Your task to perform on an android device: uninstall "Clock" Image 0: 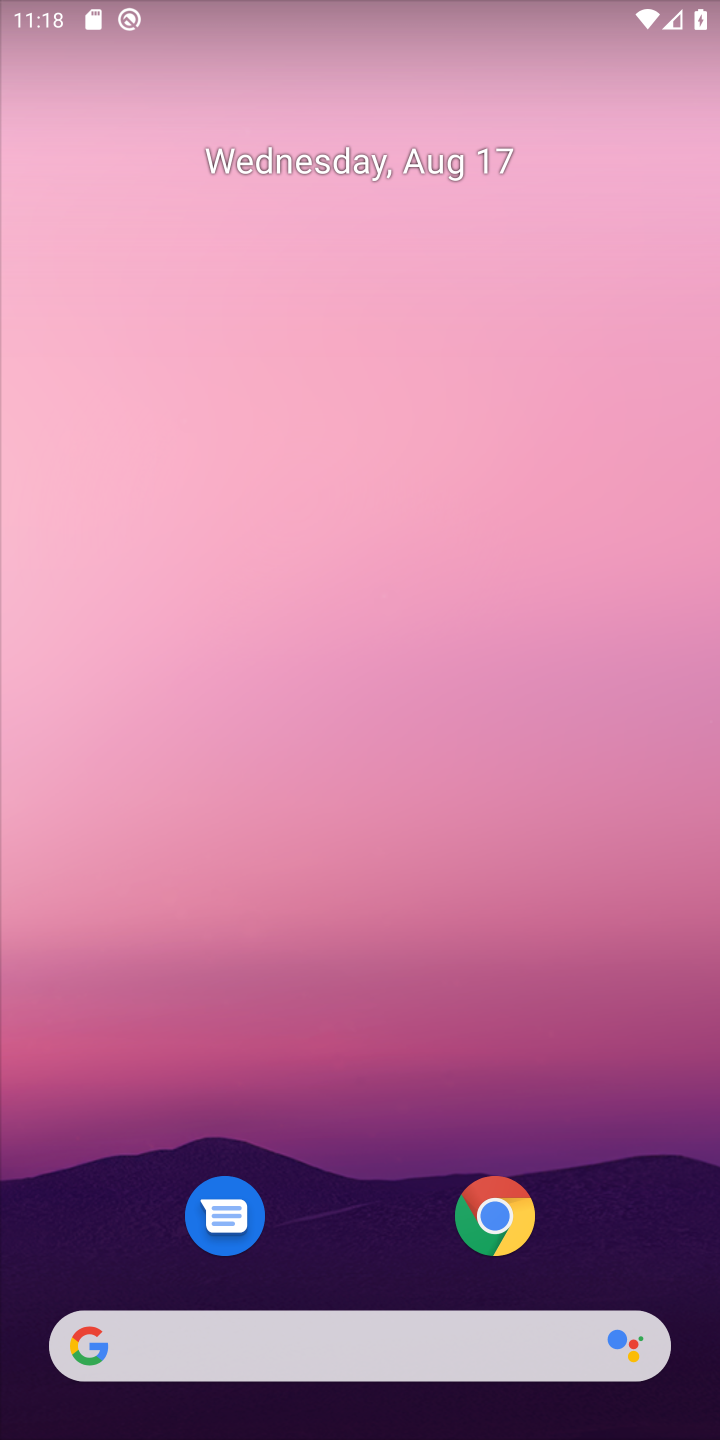
Step 0: click (649, 1004)
Your task to perform on an android device: uninstall "Clock" Image 1: 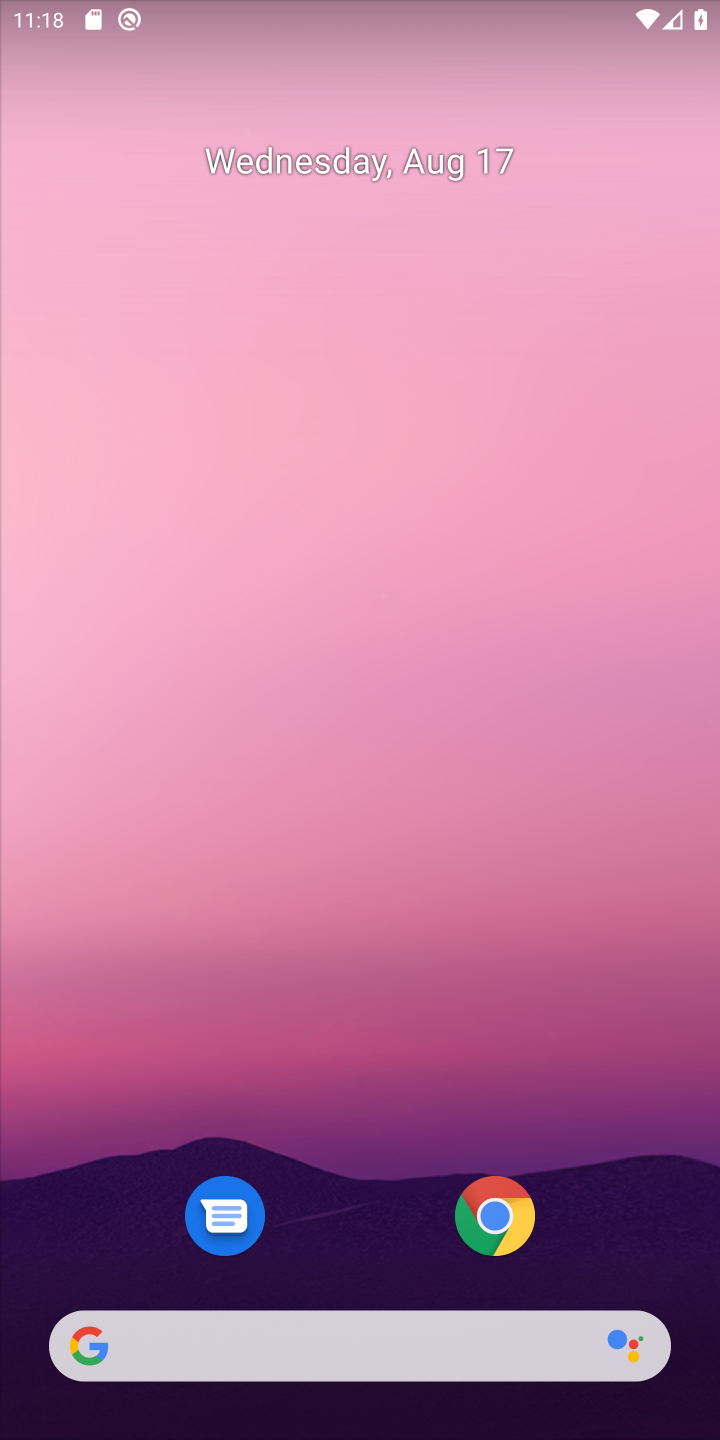
Step 1: drag from (660, 1194) to (484, 194)
Your task to perform on an android device: uninstall "Clock" Image 2: 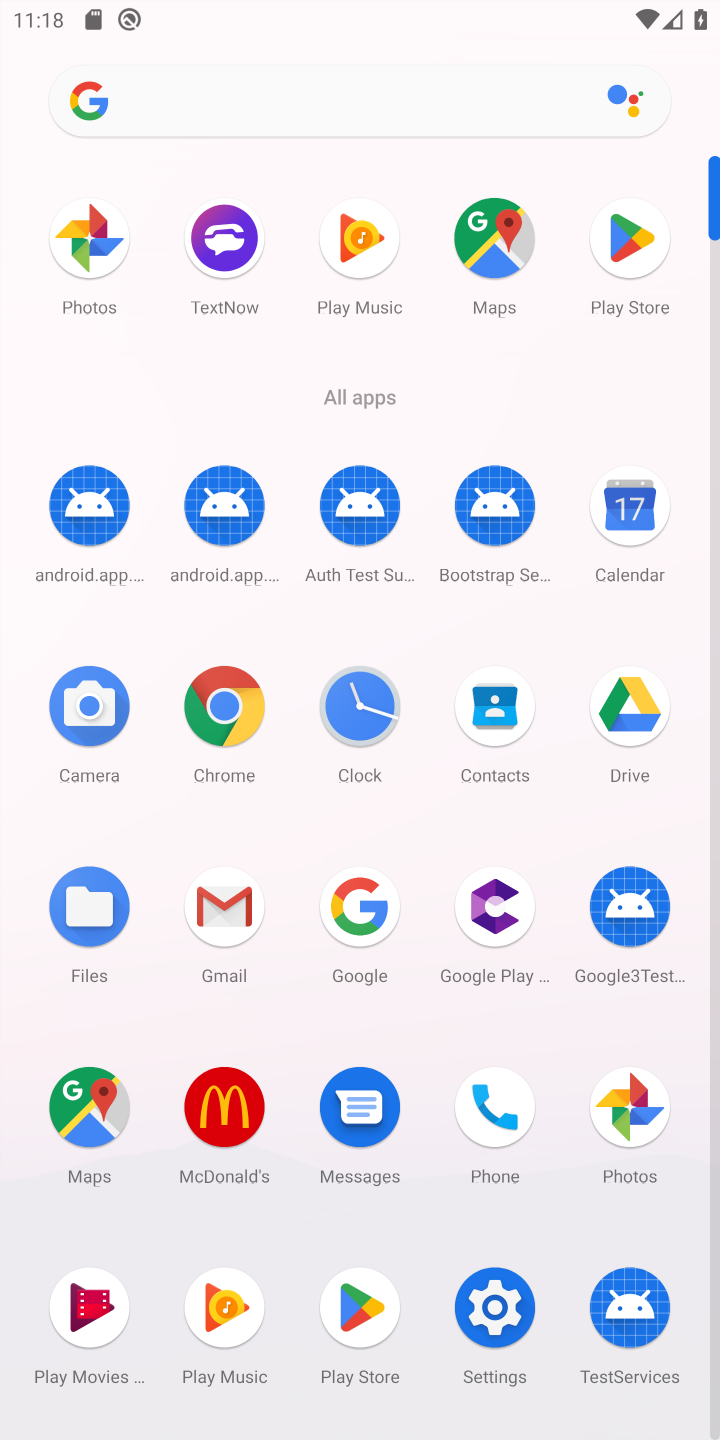
Step 2: click (367, 1336)
Your task to perform on an android device: uninstall "Clock" Image 3: 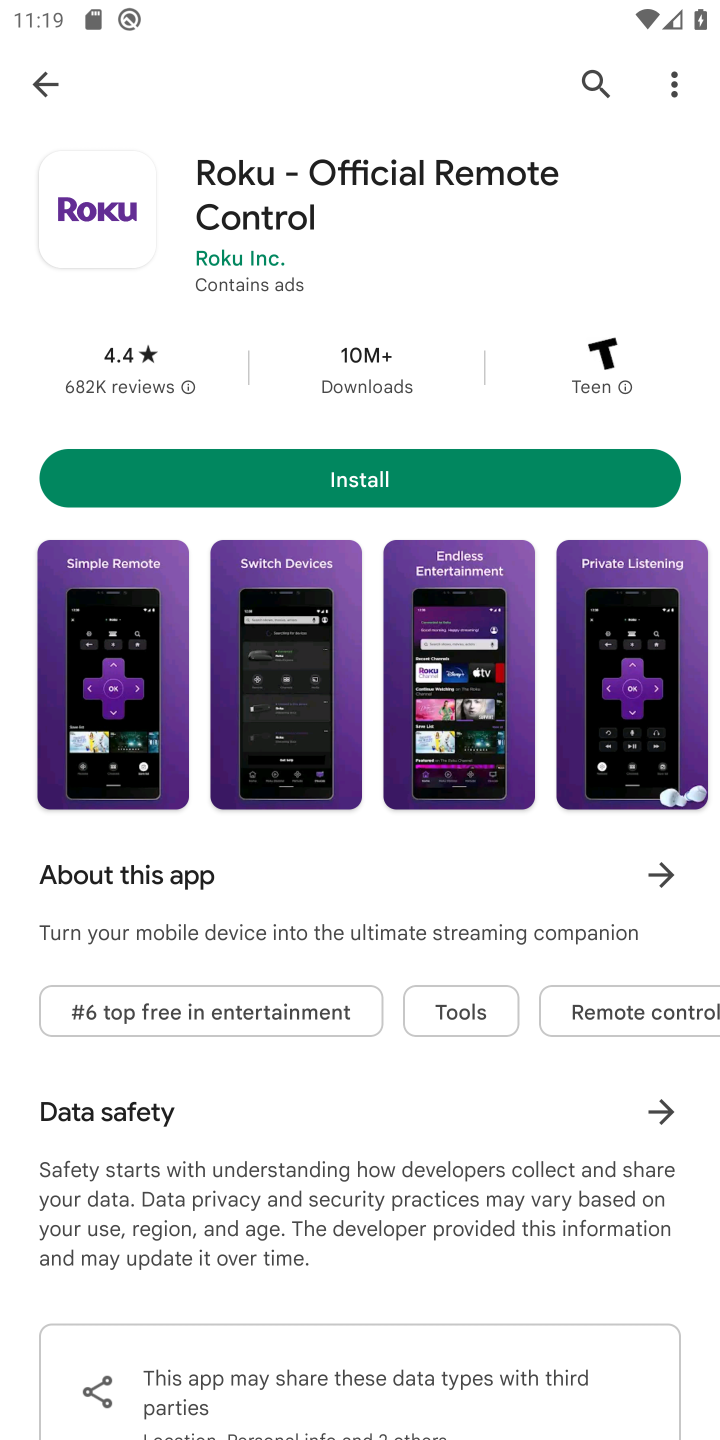
Step 3: click (630, 74)
Your task to perform on an android device: uninstall "Clock" Image 4: 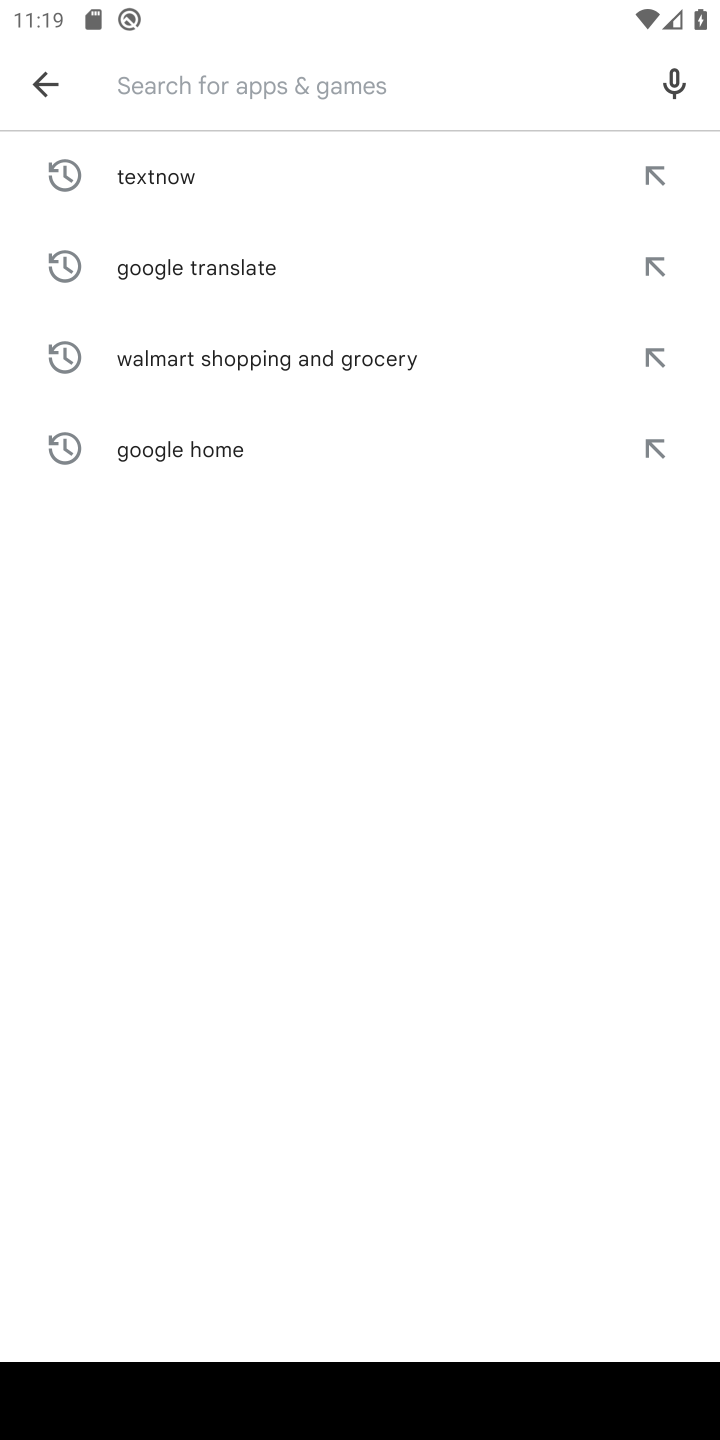
Step 4: type "clock"
Your task to perform on an android device: uninstall "Clock" Image 5: 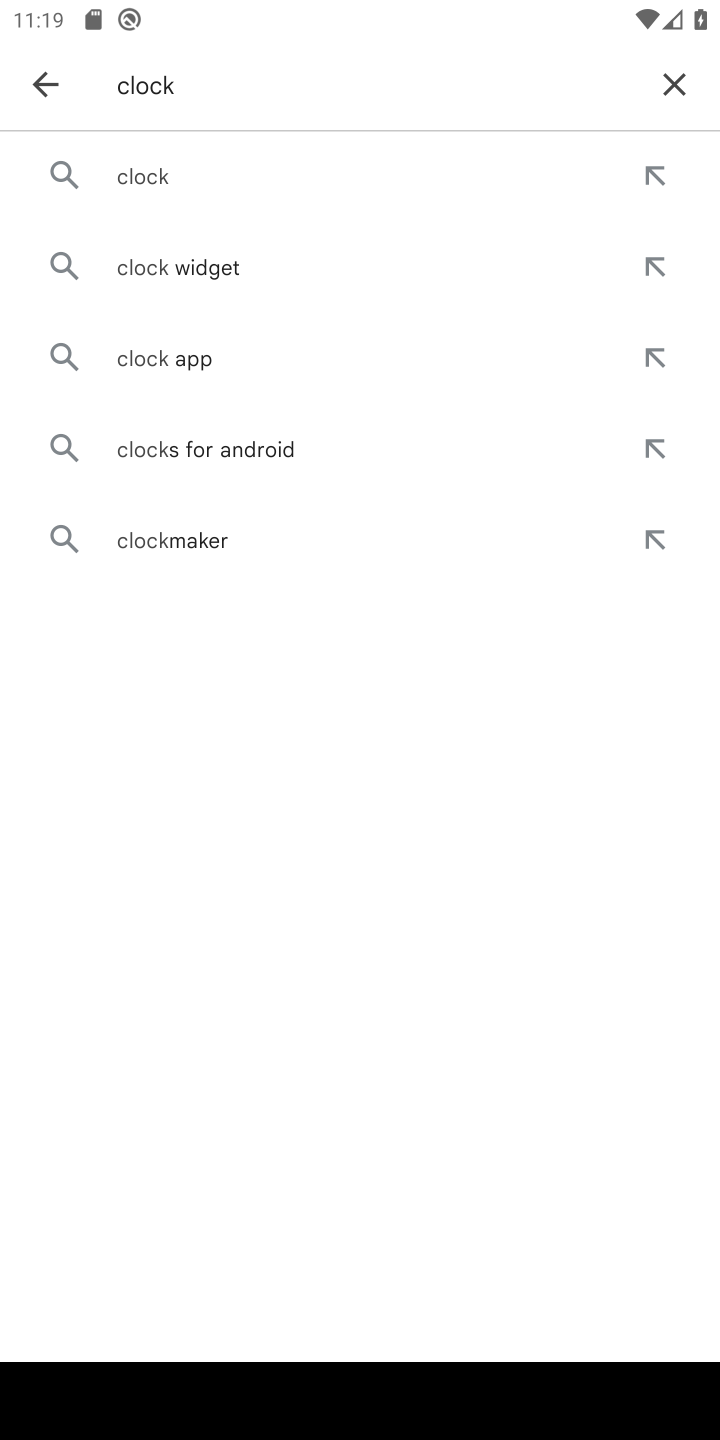
Step 5: click (362, 164)
Your task to perform on an android device: uninstall "Clock" Image 6: 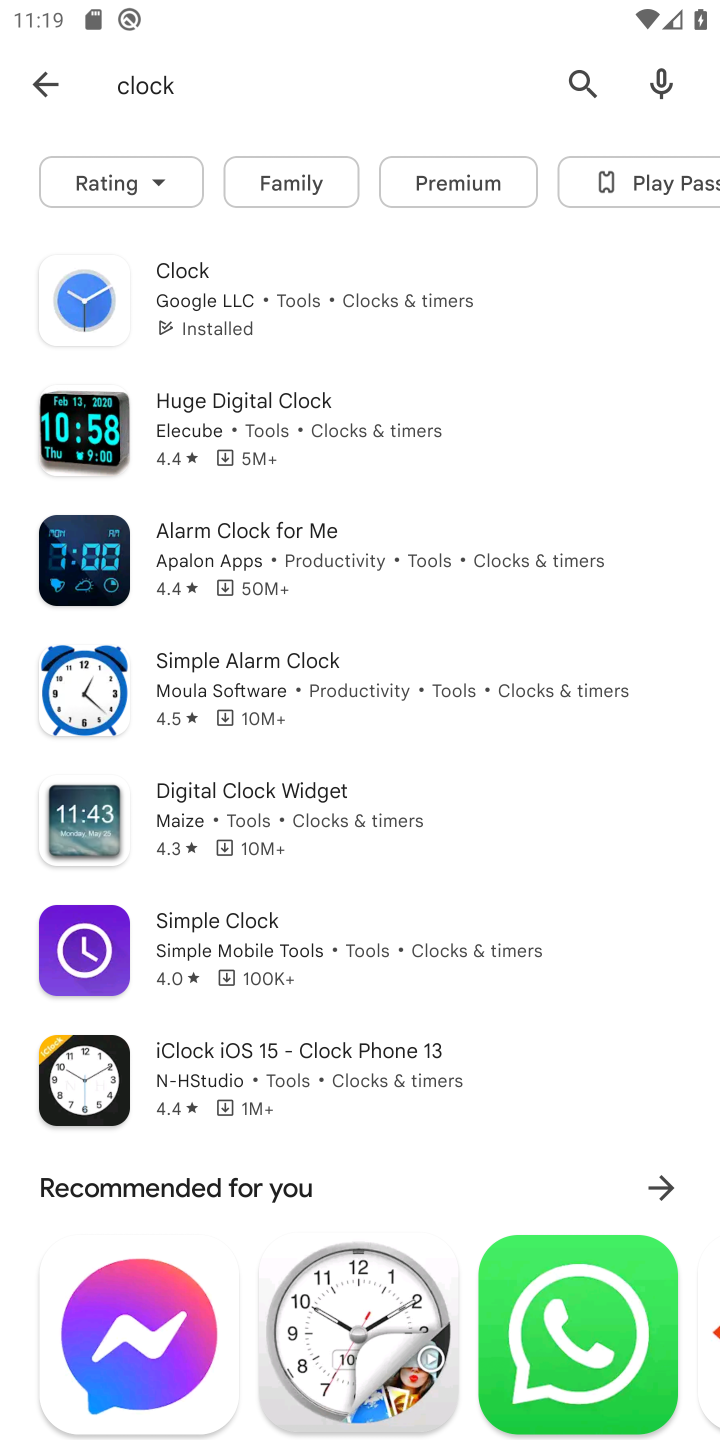
Step 6: click (218, 274)
Your task to perform on an android device: uninstall "Clock" Image 7: 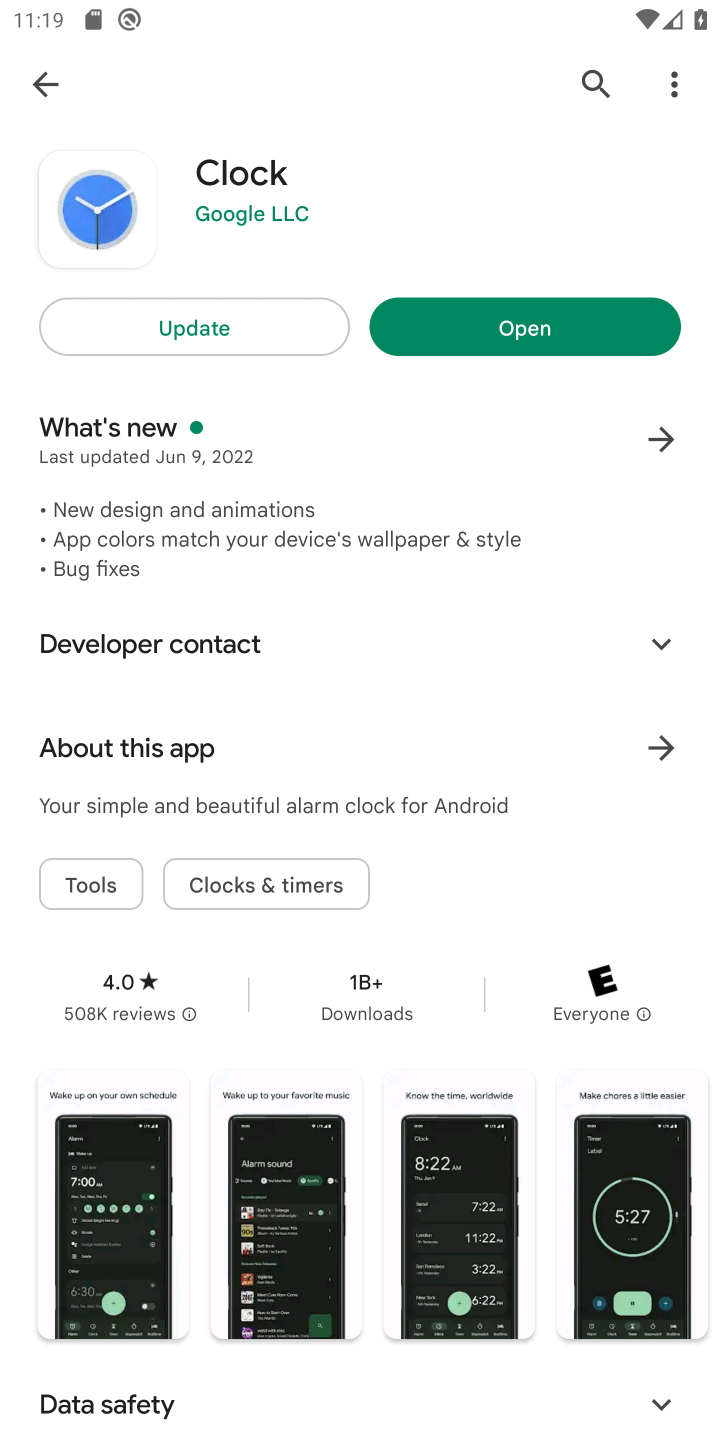
Step 7: click (685, 77)
Your task to perform on an android device: uninstall "Clock" Image 8: 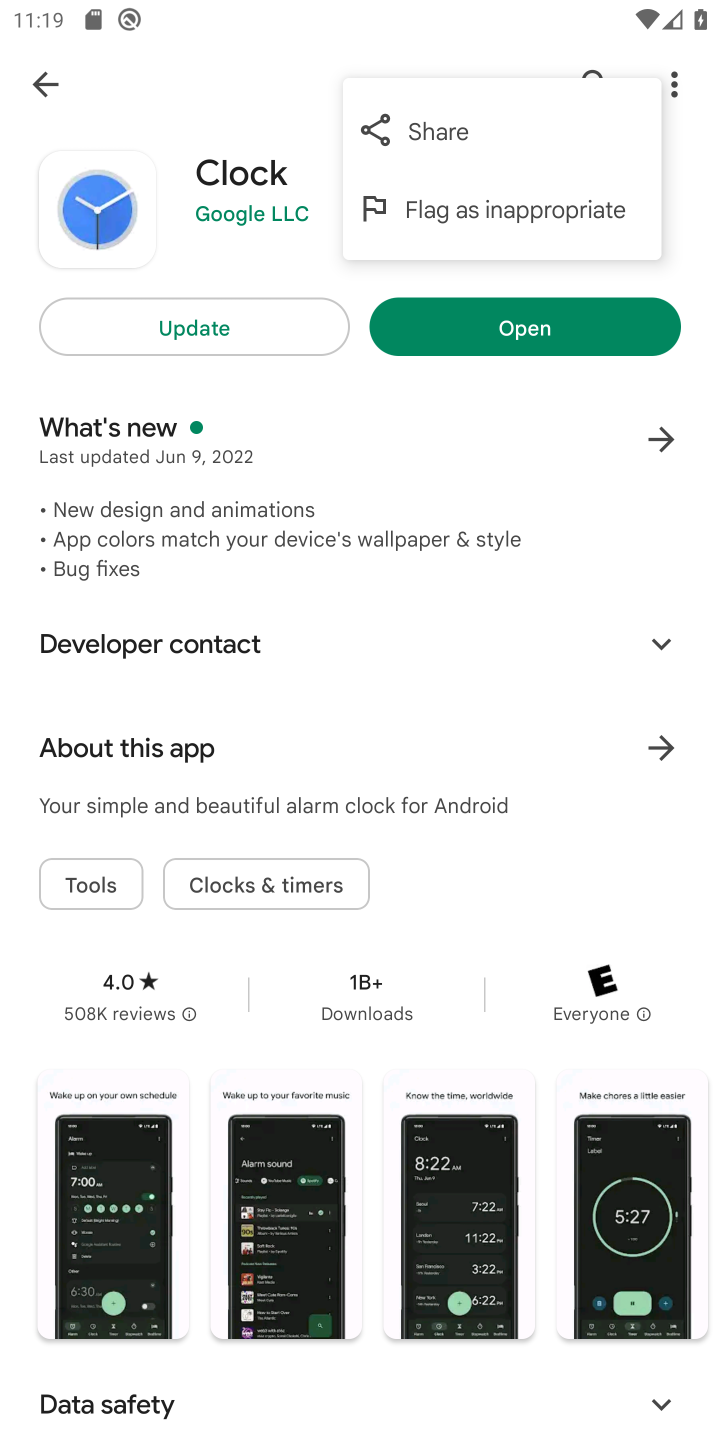
Step 8: task complete